Your task to perform on an android device: Open sound settings Image 0: 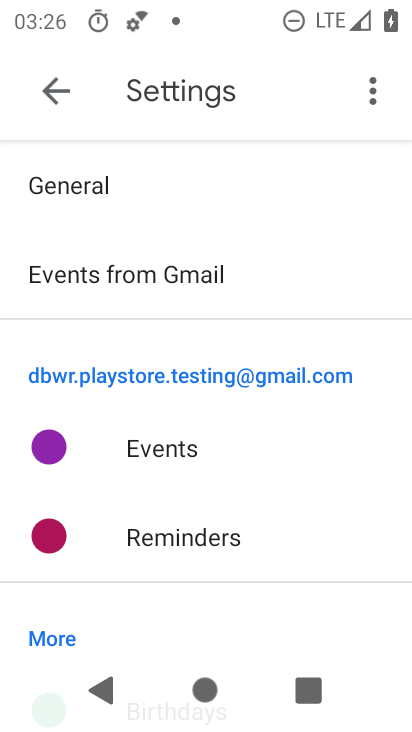
Step 0: press home button
Your task to perform on an android device: Open sound settings Image 1: 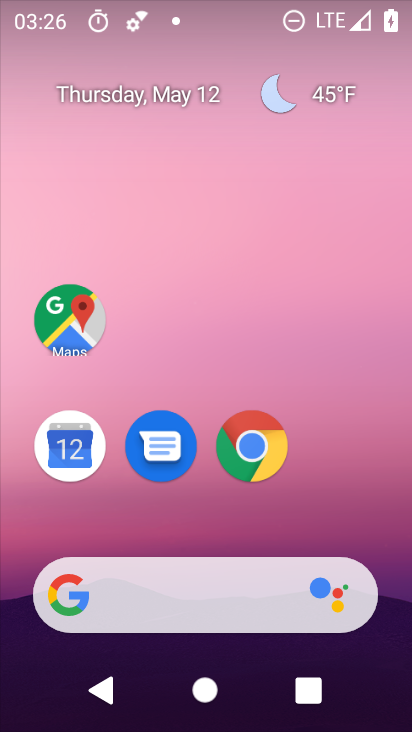
Step 1: drag from (213, 477) to (238, 231)
Your task to perform on an android device: Open sound settings Image 2: 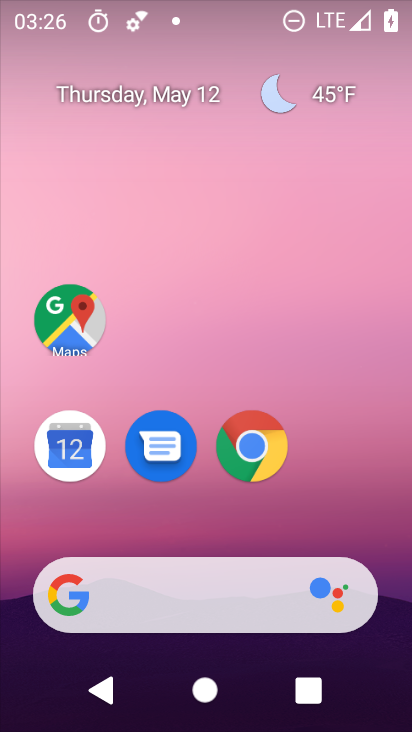
Step 2: drag from (254, 526) to (284, 193)
Your task to perform on an android device: Open sound settings Image 3: 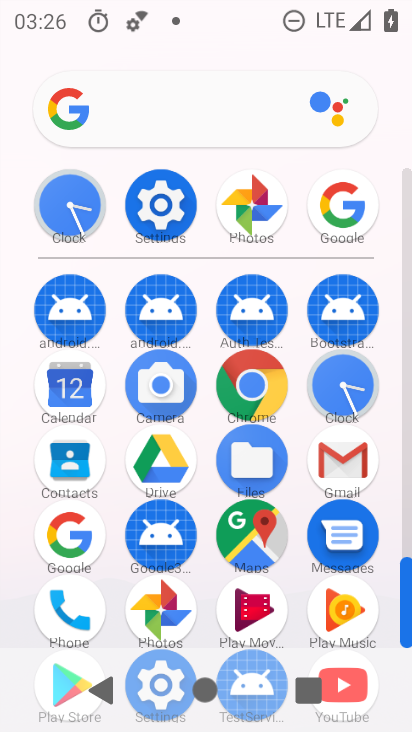
Step 3: click (167, 219)
Your task to perform on an android device: Open sound settings Image 4: 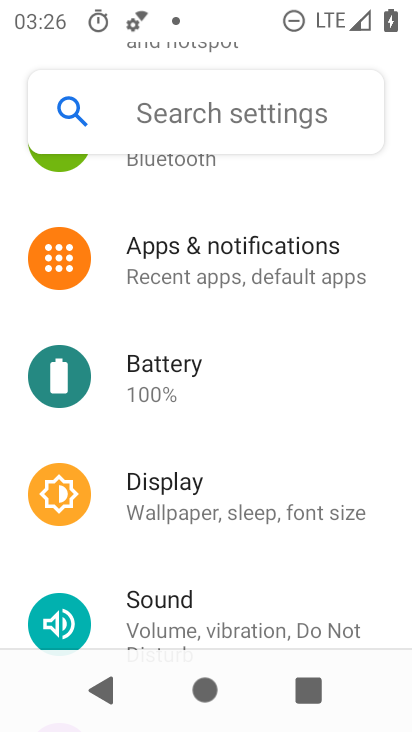
Step 4: drag from (206, 532) to (206, 358)
Your task to perform on an android device: Open sound settings Image 5: 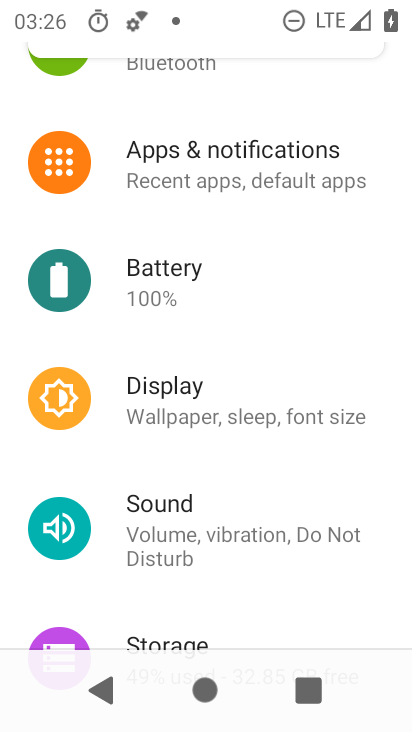
Step 5: click (153, 529)
Your task to perform on an android device: Open sound settings Image 6: 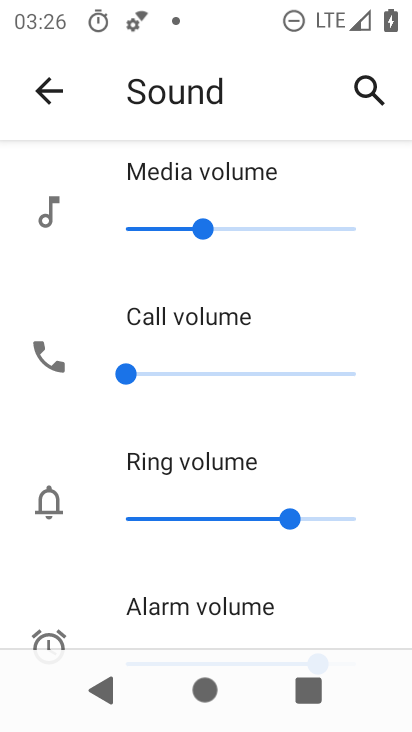
Step 6: task complete